Your task to perform on an android device: check data usage Image 0: 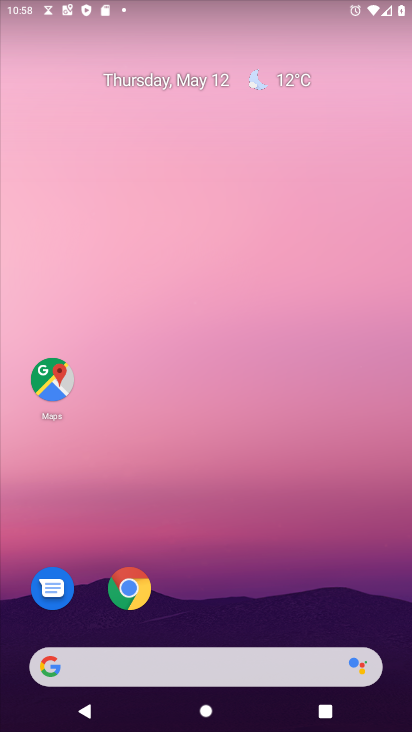
Step 0: drag from (234, 595) to (169, 163)
Your task to perform on an android device: check data usage Image 1: 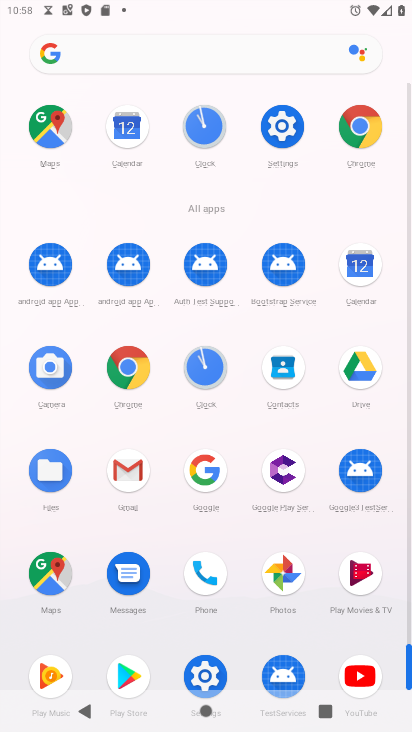
Step 1: click (279, 126)
Your task to perform on an android device: check data usage Image 2: 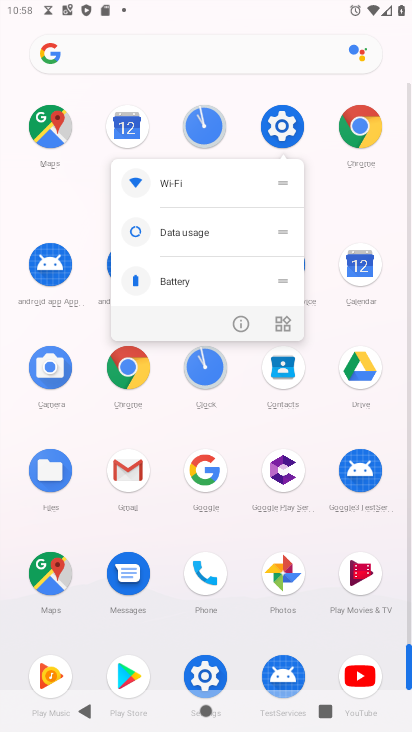
Step 2: click (185, 236)
Your task to perform on an android device: check data usage Image 3: 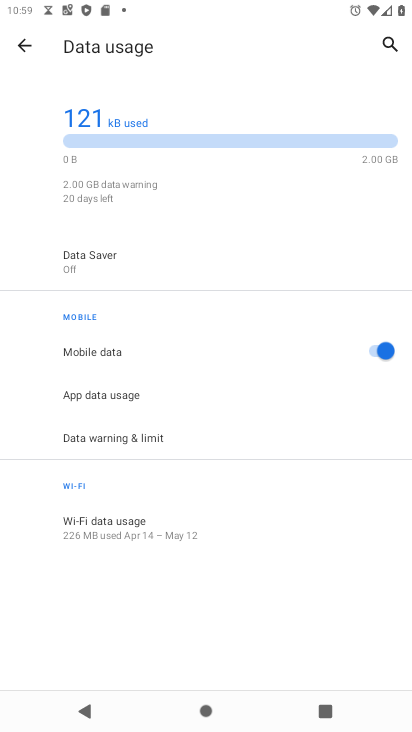
Step 3: task complete